Your task to perform on an android device: Go to Reddit.com Image 0: 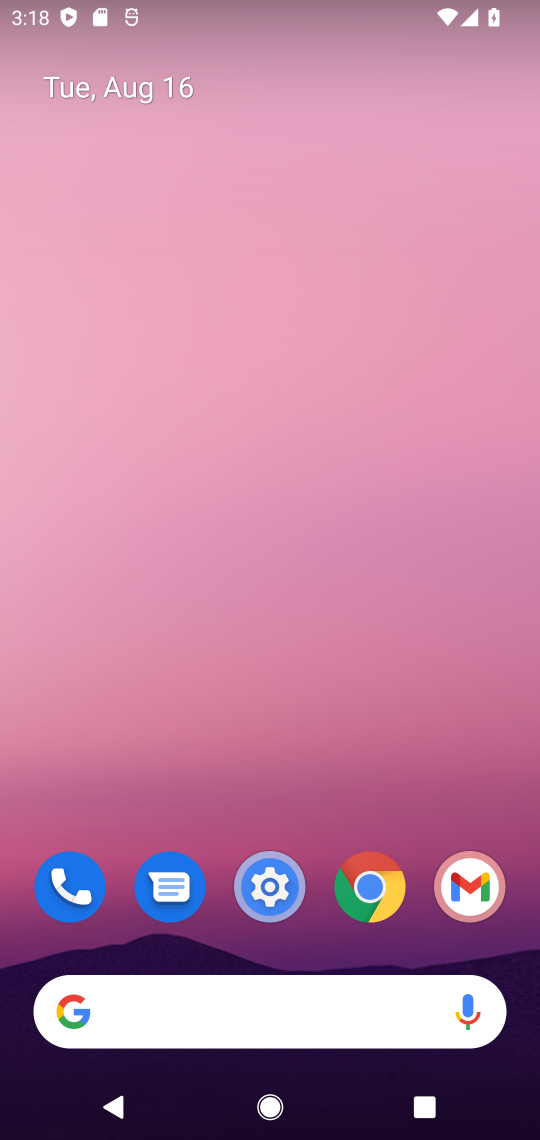
Step 0: drag from (330, 815) to (254, 88)
Your task to perform on an android device: Go to Reddit.com Image 1: 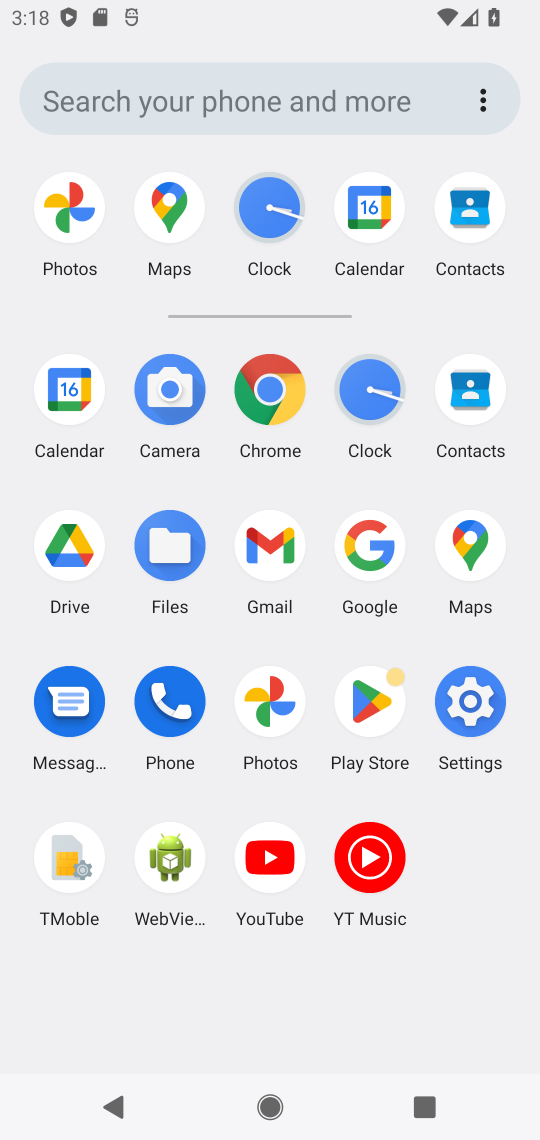
Step 1: click (267, 393)
Your task to perform on an android device: Go to Reddit.com Image 2: 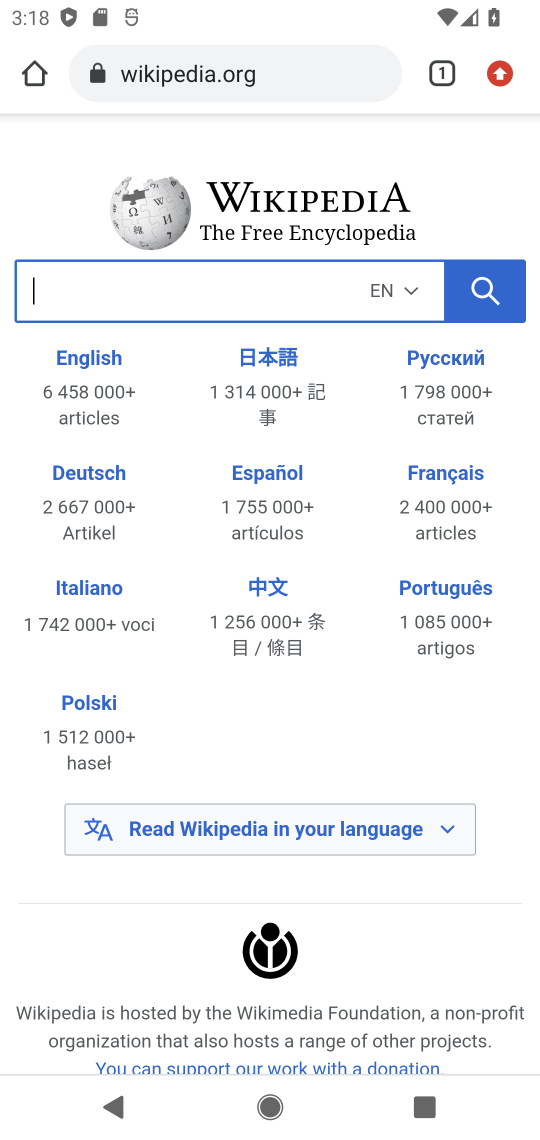
Step 2: click (279, 82)
Your task to perform on an android device: Go to Reddit.com Image 3: 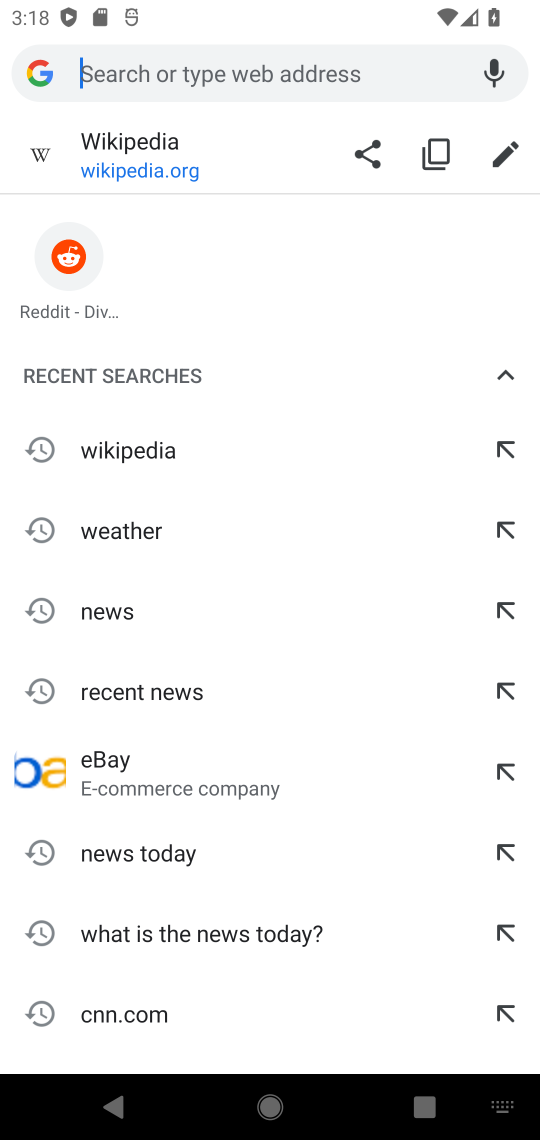
Step 3: click (66, 251)
Your task to perform on an android device: Go to Reddit.com Image 4: 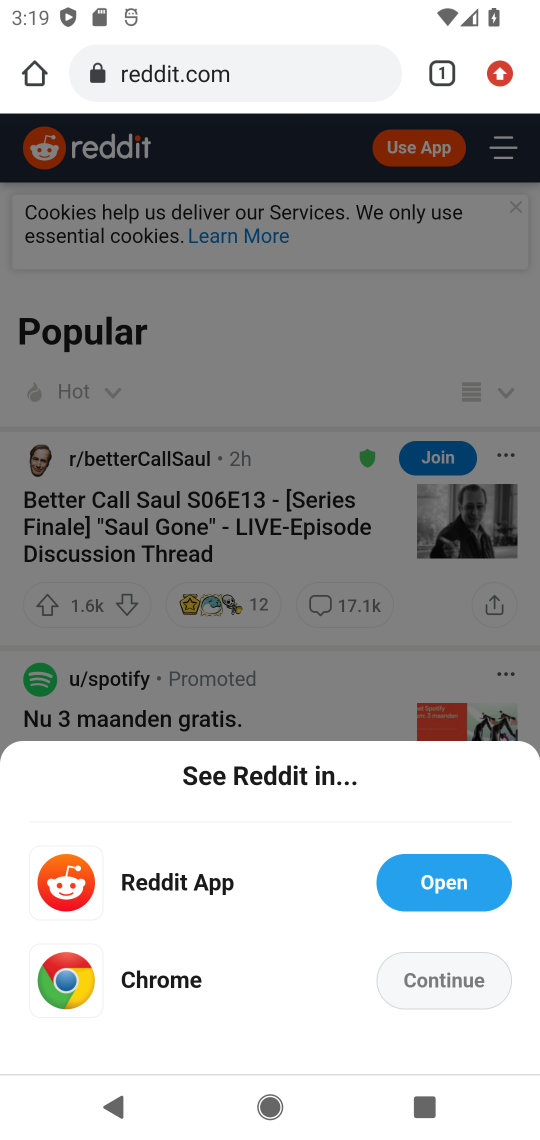
Step 4: task complete